Your task to perform on an android device: turn off javascript in the chrome app Image 0: 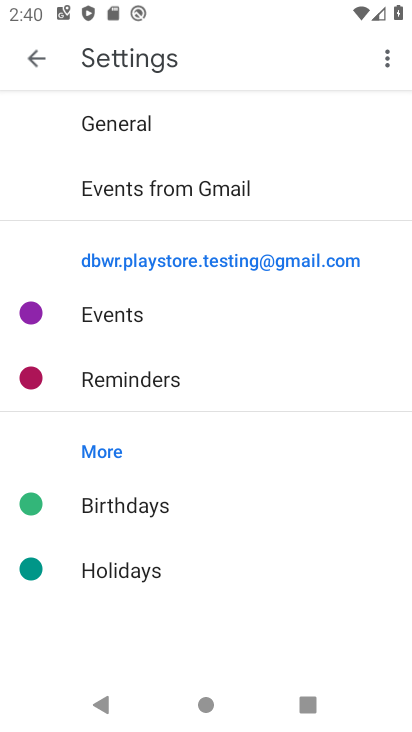
Step 0: press home button
Your task to perform on an android device: turn off javascript in the chrome app Image 1: 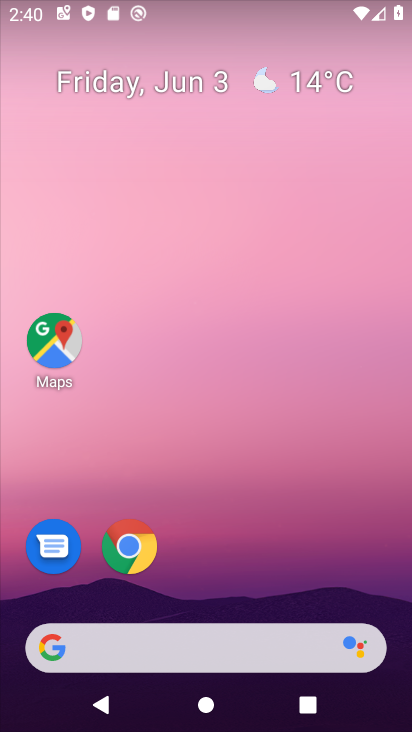
Step 1: drag from (294, 538) to (346, 189)
Your task to perform on an android device: turn off javascript in the chrome app Image 2: 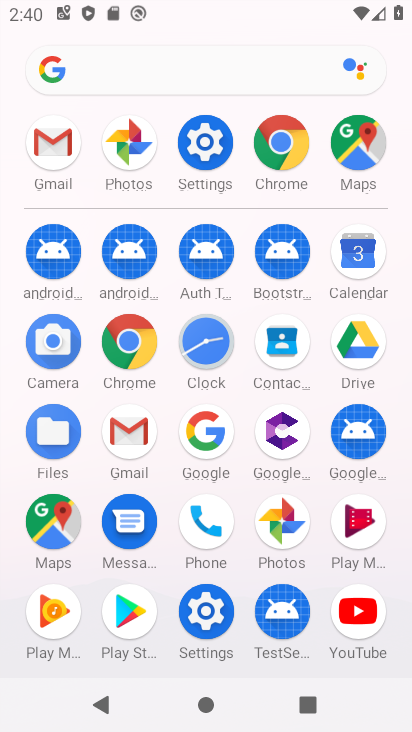
Step 2: click (285, 136)
Your task to perform on an android device: turn off javascript in the chrome app Image 3: 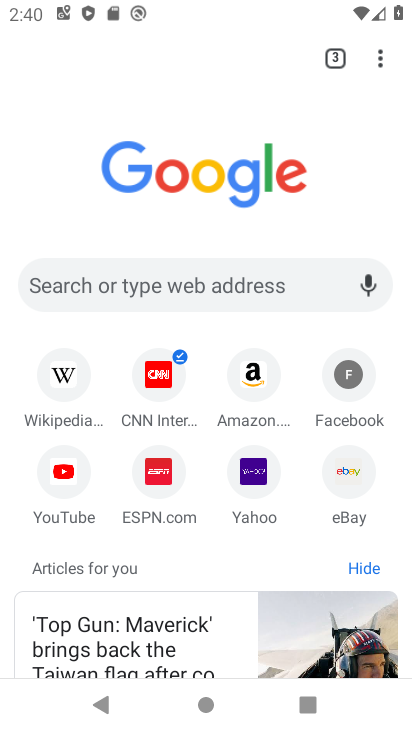
Step 3: drag from (387, 69) to (205, 490)
Your task to perform on an android device: turn off javascript in the chrome app Image 4: 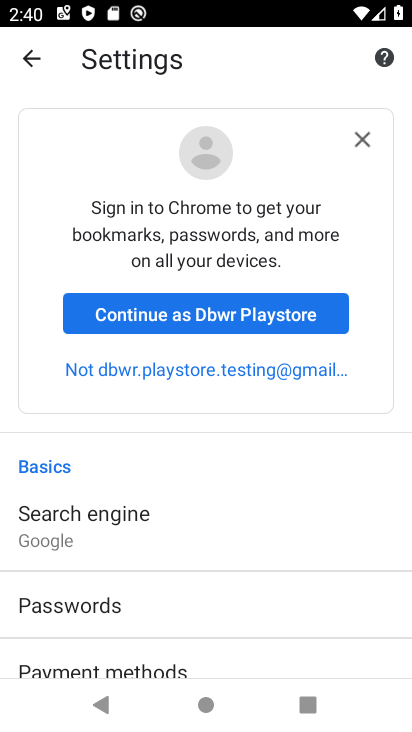
Step 4: drag from (127, 609) to (215, 156)
Your task to perform on an android device: turn off javascript in the chrome app Image 5: 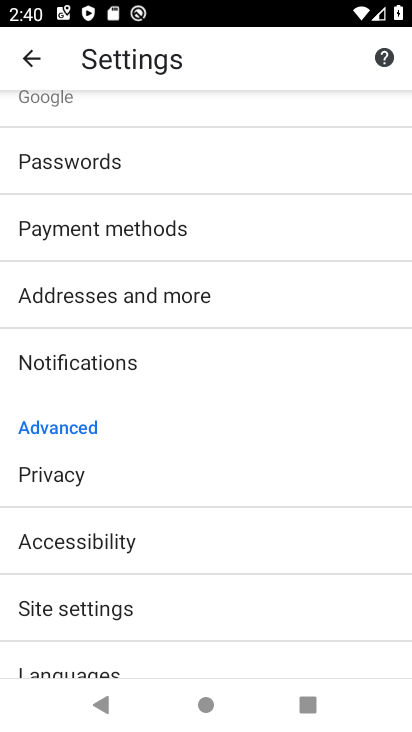
Step 5: drag from (143, 605) to (245, 171)
Your task to perform on an android device: turn off javascript in the chrome app Image 6: 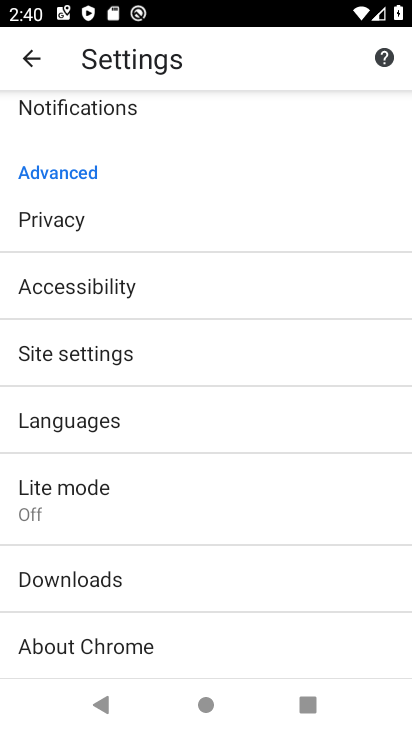
Step 6: click (100, 354)
Your task to perform on an android device: turn off javascript in the chrome app Image 7: 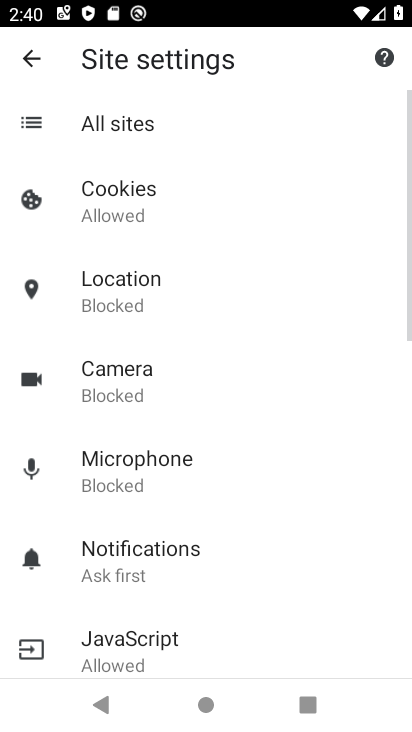
Step 7: drag from (178, 586) to (326, 101)
Your task to perform on an android device: turn off javascript in the chrome app Image 8: 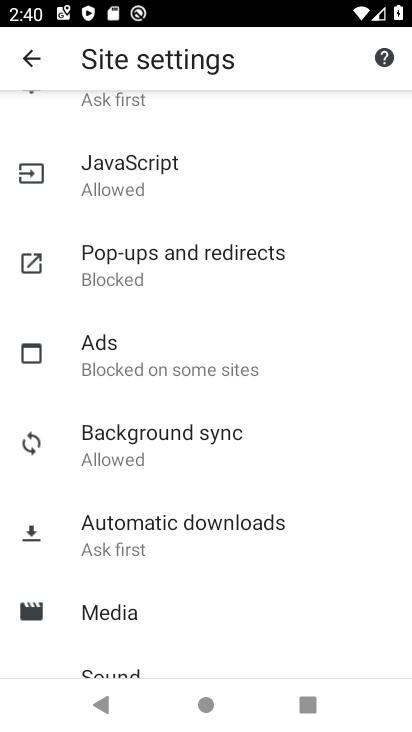
Step 8: drag from (141, 579) to (270, 201)
Your task to perform on an android device: turn off javascript in the chrome app Image 9: 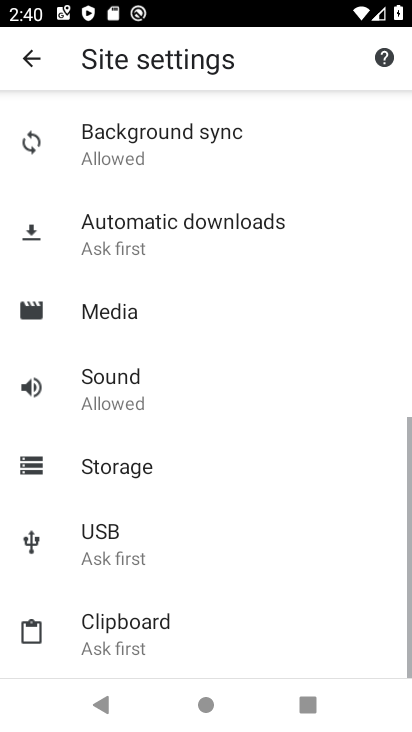
Step 9: drag from (267, 205) to (250, 687)
Your task to perform on an android device: turn off javascript in the chrome app Image 10: 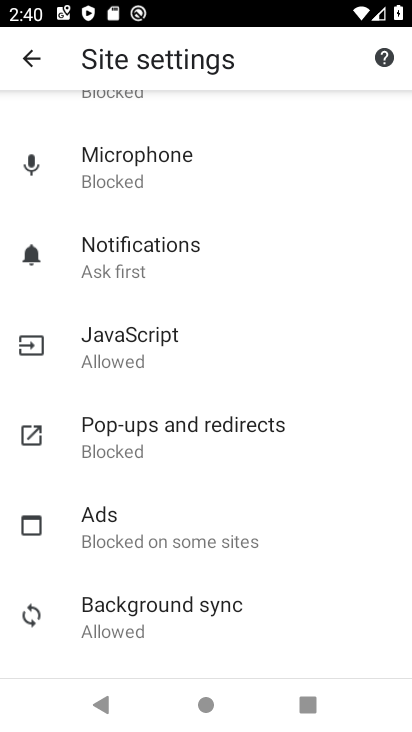
Step 10: click (135, 356)
Your task to perform on an android device: turn off javascript in the chrome app Image 11: 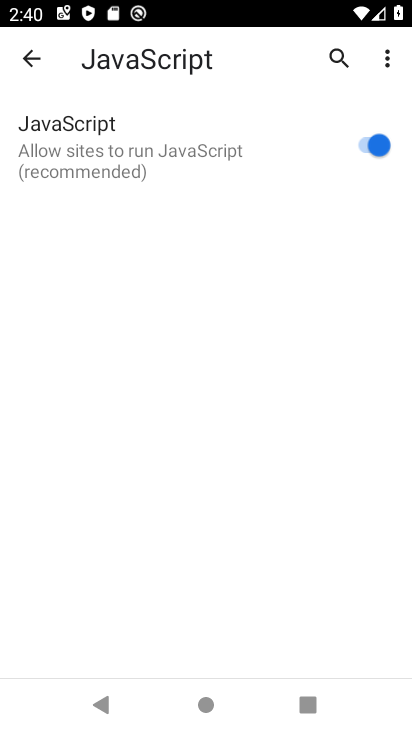
Step 11: click (382, 154)
Your task to perform on an android device: turn off javascript in the chrome app Image 12: 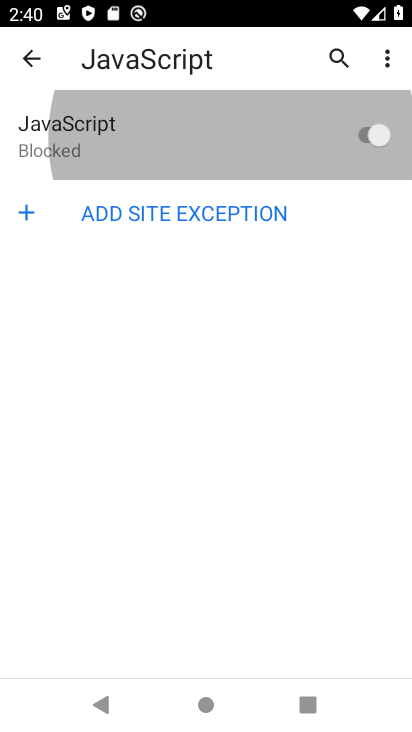
Step 12: task complete